Your task to perform on an android device: snooze an email in the gmail app Image 0: 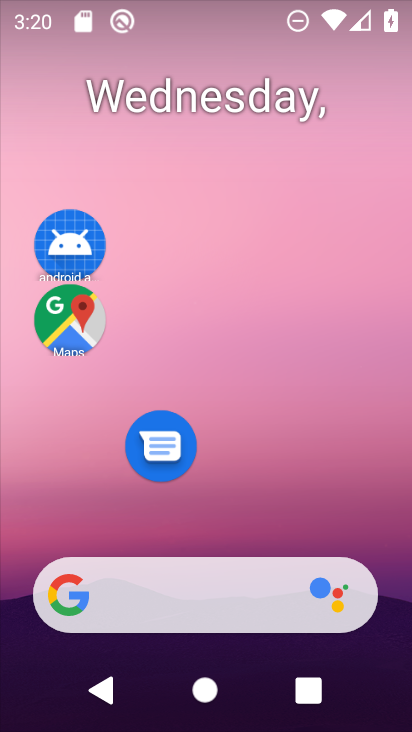
Step 0: drag from (308, 542) to (304, 135)
Your task to perform on an android device: snooze an email in the gmail app Image 1: 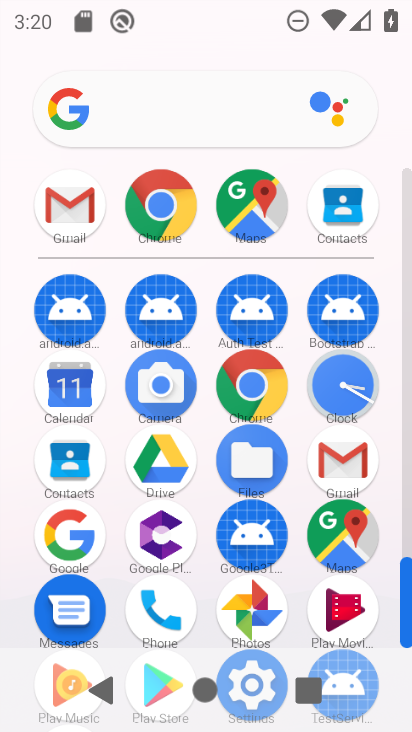
Step 1: click (80, 204)
Your task to perform on an android device: snooze an email in the gmail app Image 2: 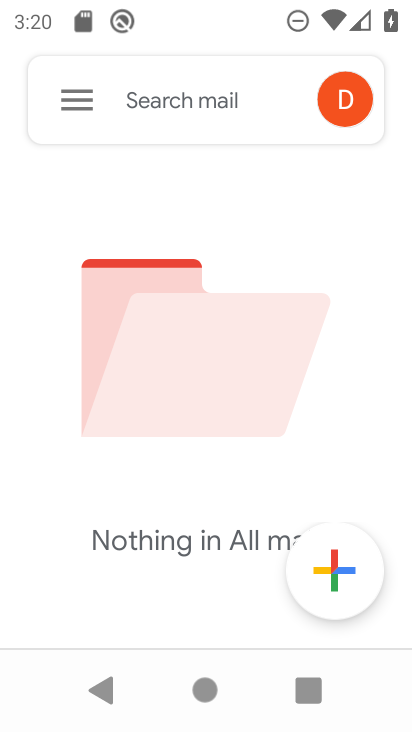
Step 2: click (81, 104)
Your task to perform on an android device: snooze an email in the gmail app Image 3: 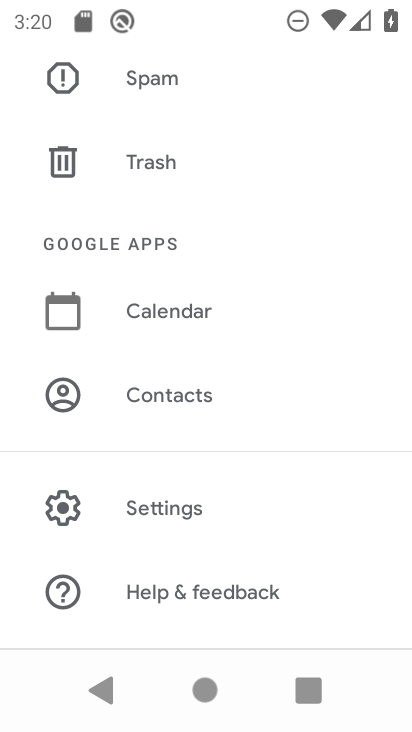
Step 3: drag from (173, 371) to (211, 499)
Your task to perform on an android device: snooze an email in the gmail app Image 4: 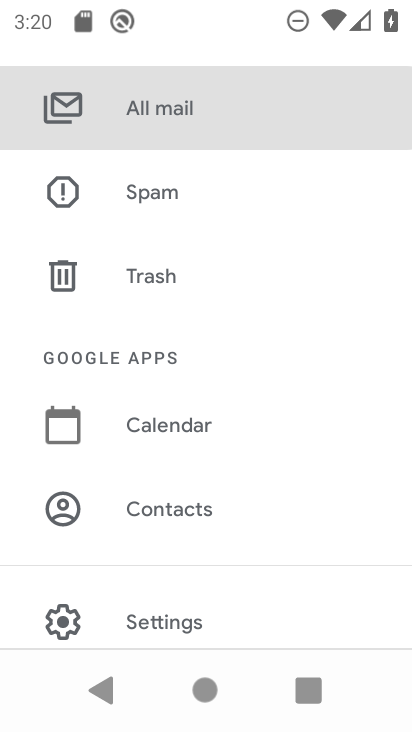
Step 4: click (146, 107)
Your task to perform on an android device: snooze an email in the gmail app Image 5: 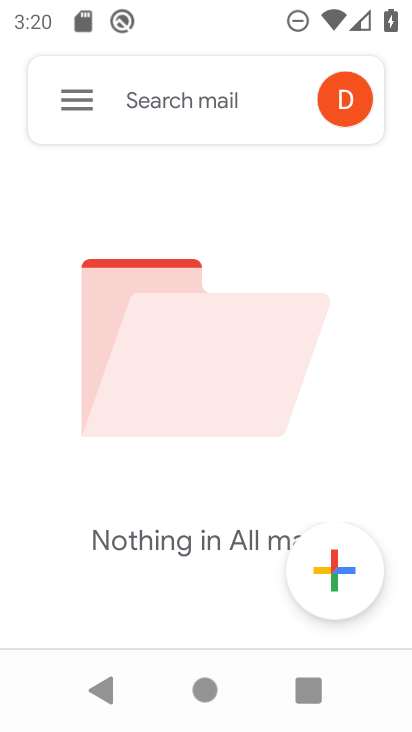
Step 5: task complete